Your task to perform on an android device: turn off translation in the chrome app Image 0: 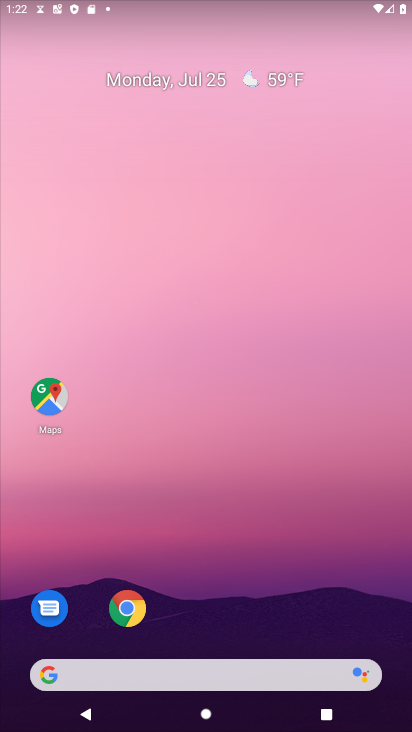
Step 0: drag from (225, 601) to (266, 127)
Your task to perform on an android device: turn off translation in the chrome app Image 1: 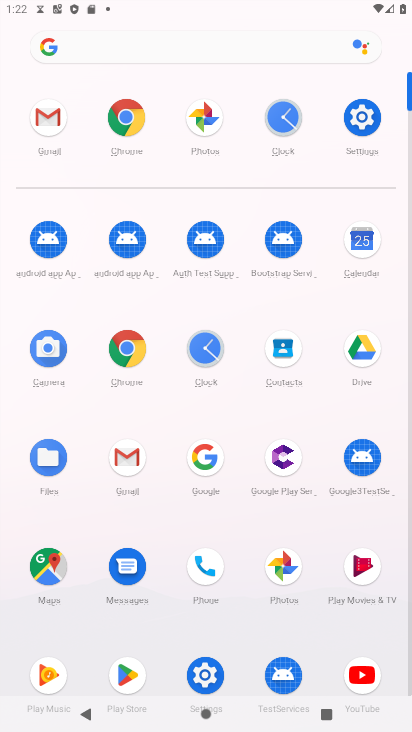
Step 1: click (142, 369)
Your task to perform on an android device: turn off translation in the chrome app Image 2: 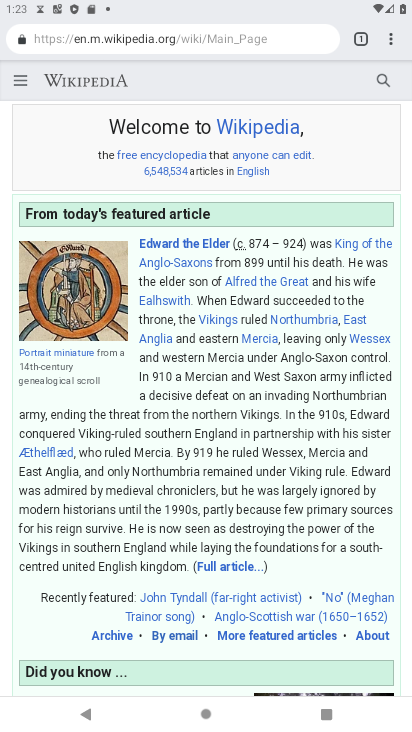
Step 2: click (393, 40)
Your task to perform on an android device: turn off translation in the chrome app Image 3: 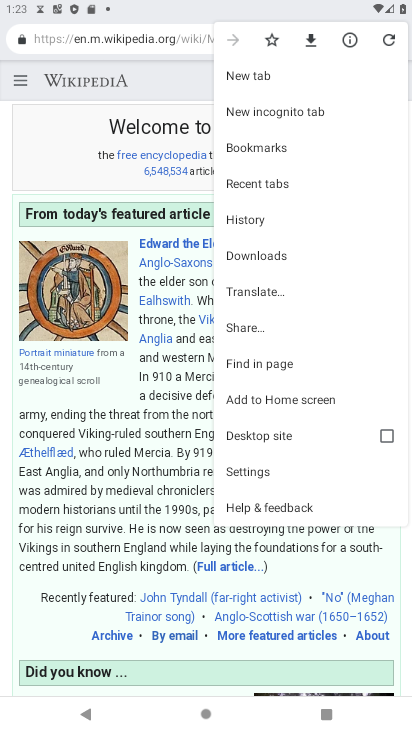
Step 3: click (269, 473)
Your task to perform on an android device: turn off translation in the chrome app Image 4: 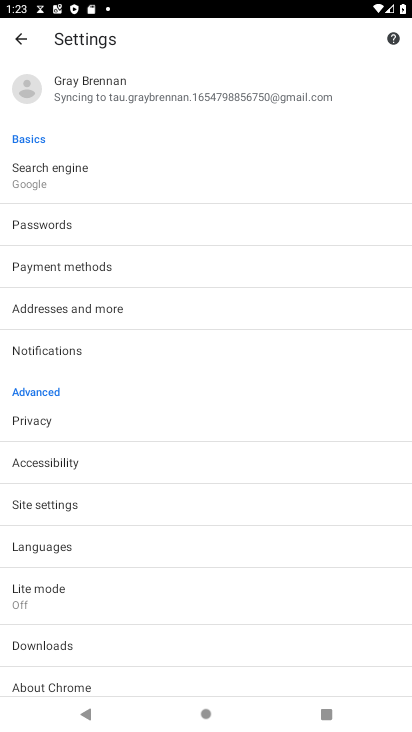
Step 4: click (101, 554)
Your task to perform on an android device: turn off translation in the chrome app Image 5: 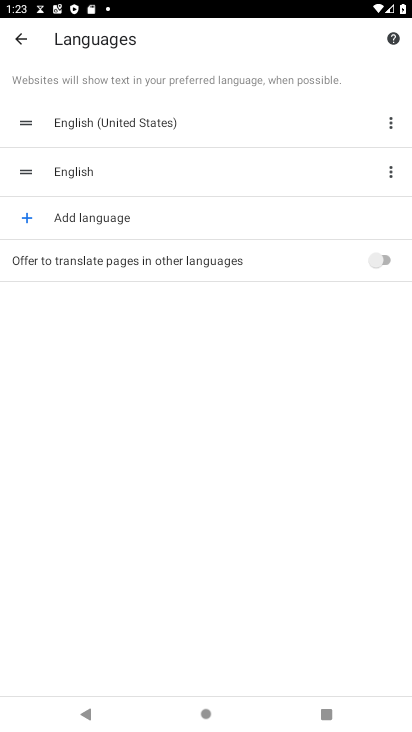
Step 5: task complete